Your task to perform on an android device: Add beats solo 3 to the cart on walmart Image 0: 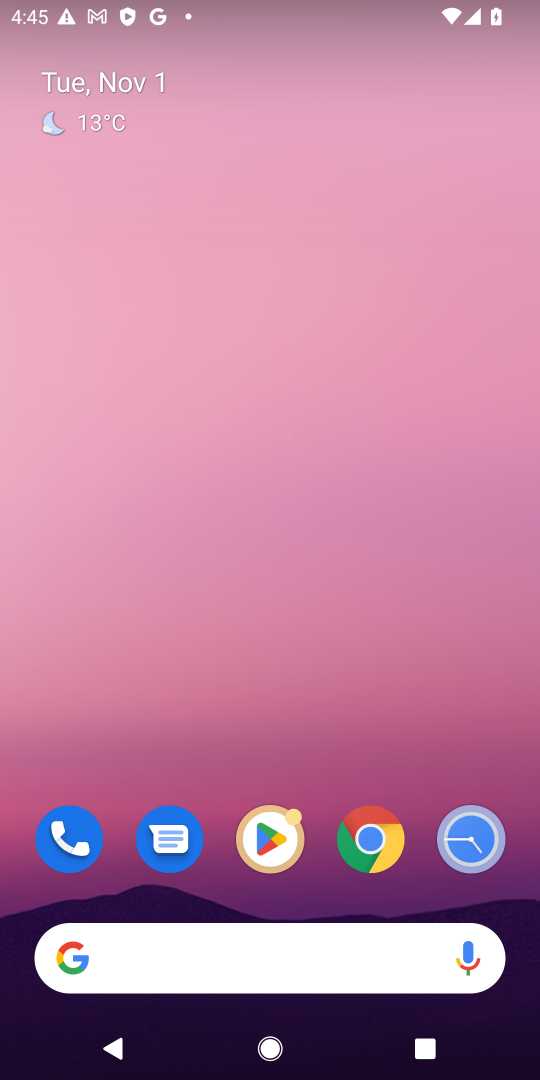
Step 0: drag from (333, 806) to (87, 1)
Your task to perform on an android device: Add beats solo 3 to the cart on walmart Image 1: 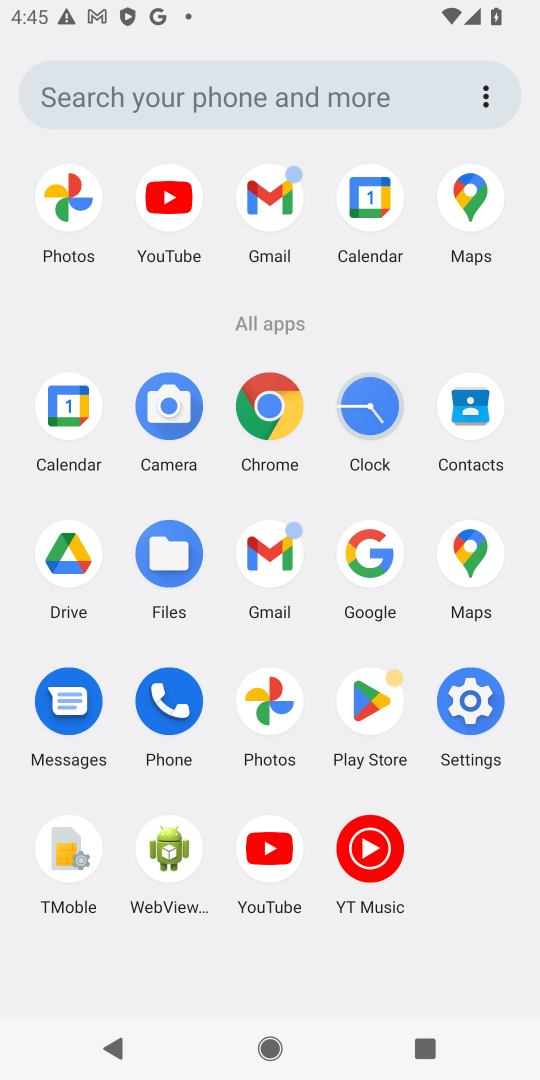
Step 1: click (265, 413)
Your task to perform on an android device: Add beats solo 3 to the cart on walmart Image 2: 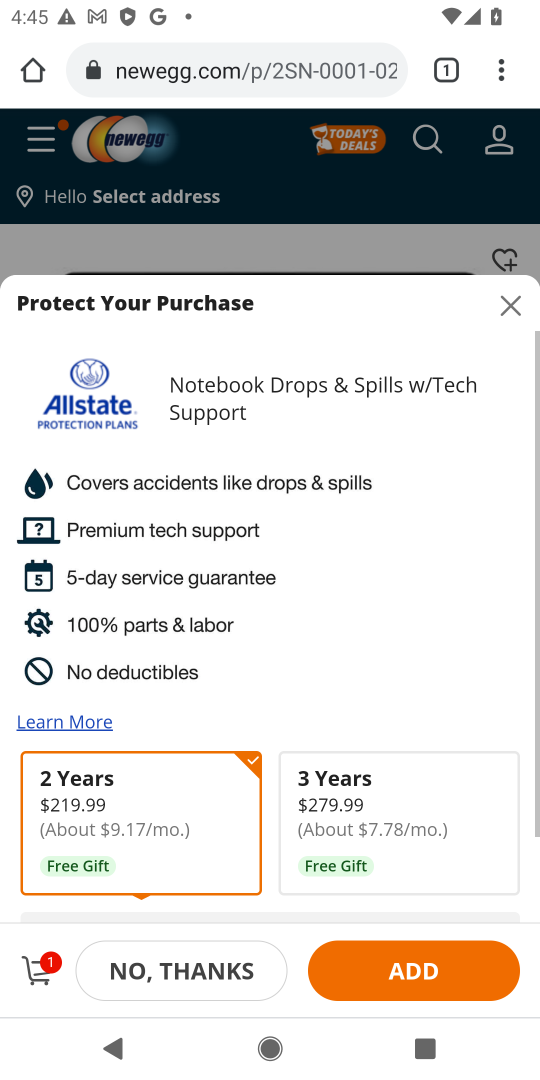
Step 2: click (332, 71)
Your task to perform on an android device: Add beats solo 3 to the cart on walmart Image 3: 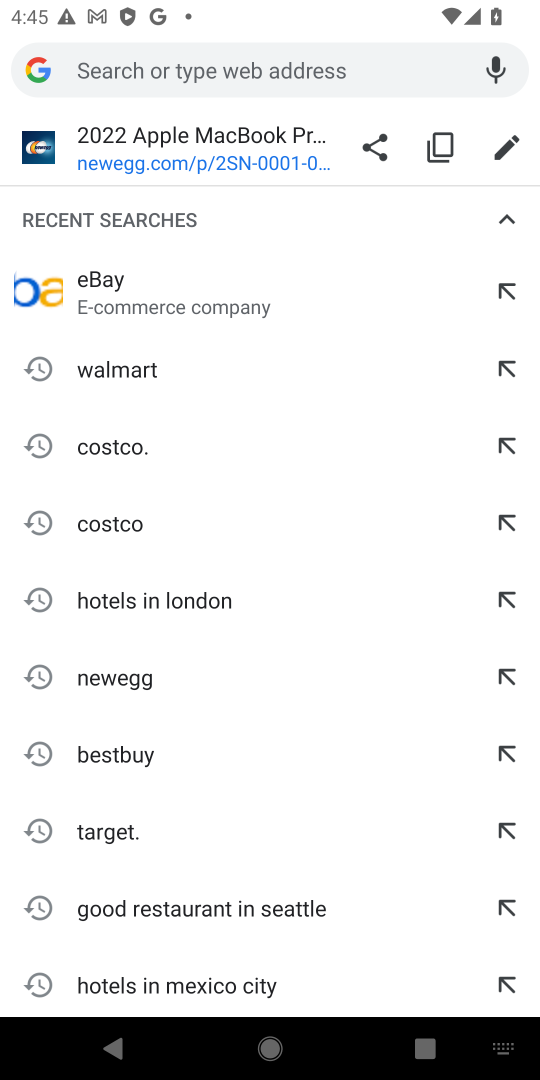
Step 3: type "walmart.com"
Your task to perform on an android device: Add beats solo 3 to the cart on walmart Image 4: 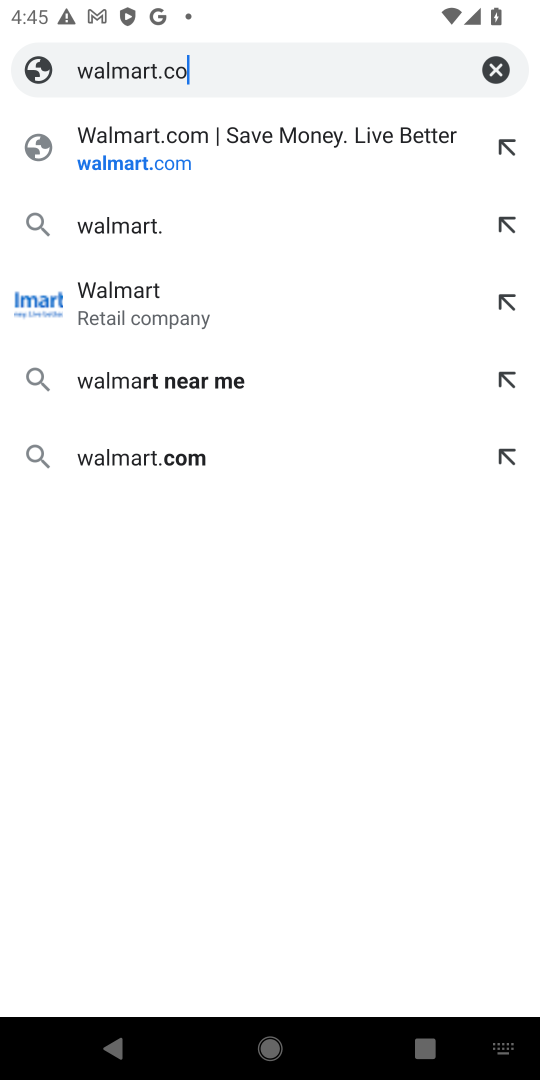
Step 4: press enter
Your task to perform on an android device: Add beats solo 3 to the cart on walmart Image 5: 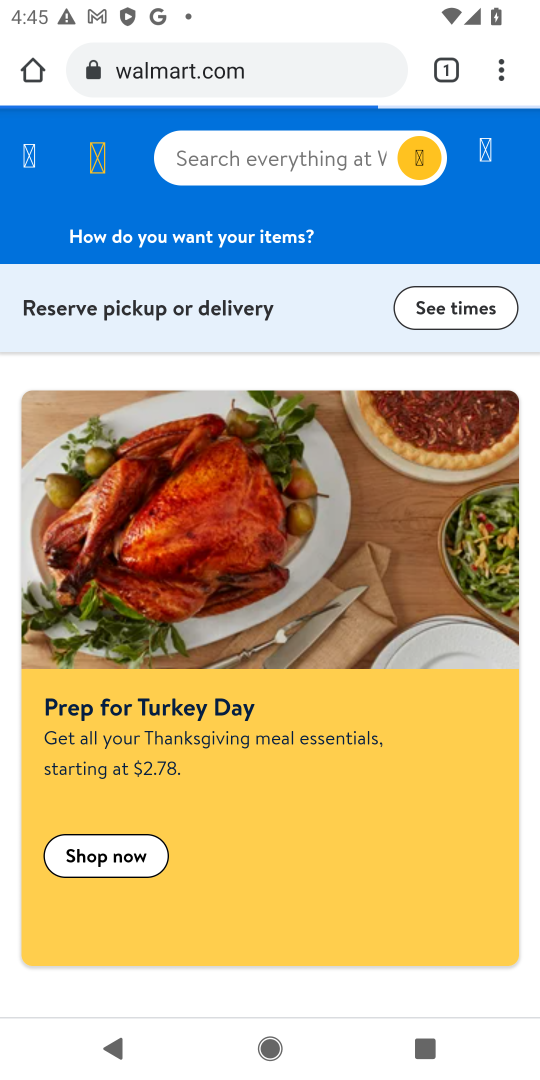
Step 5: click (292, 160)
Your task to perform on an android device: Add beats solo 3 to the cart on walmart Image 6: 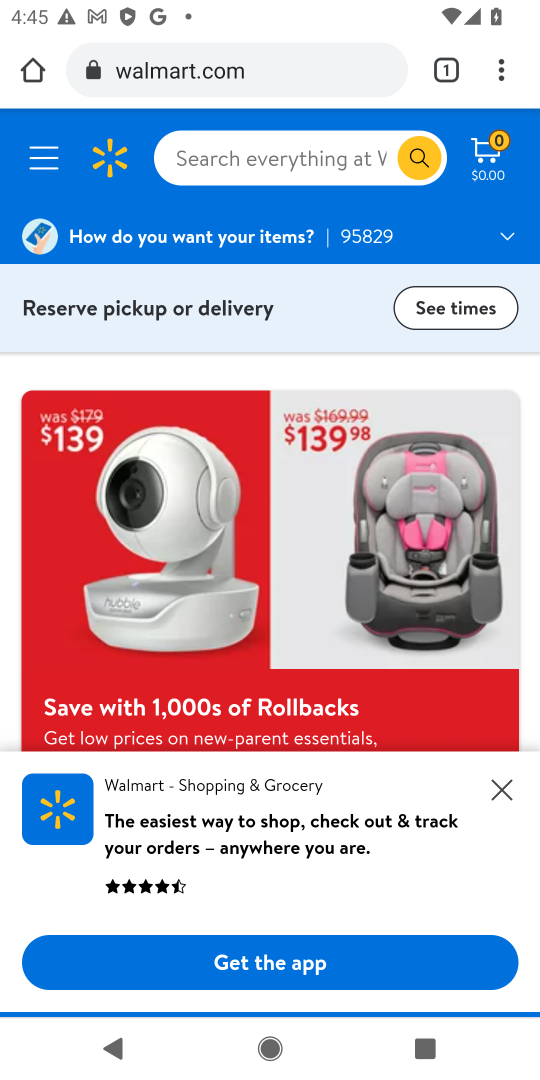
Step 6: click (312, 154)
Your task to perform on an android device: Add beats solo 3 to the cart on walmart Image 7: 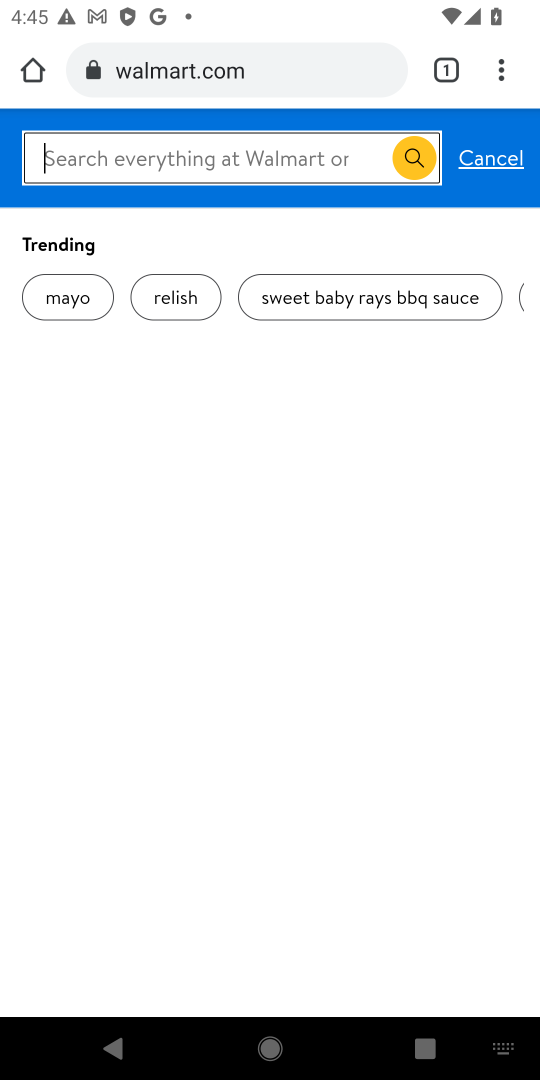
Step 7: type "beats solo 3"
Your task to perform on an android device: Add beats solo 3 to the cart on walmart Image 8: 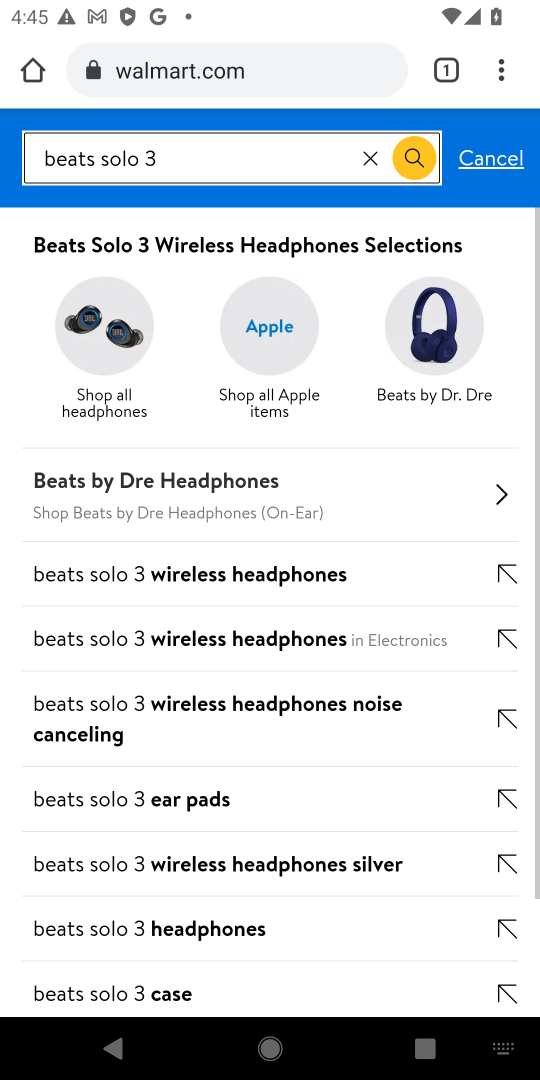
Step 8: press enter
Your task to perform on an android device: Add beats solo 3 to the cart on walmart Image 9: 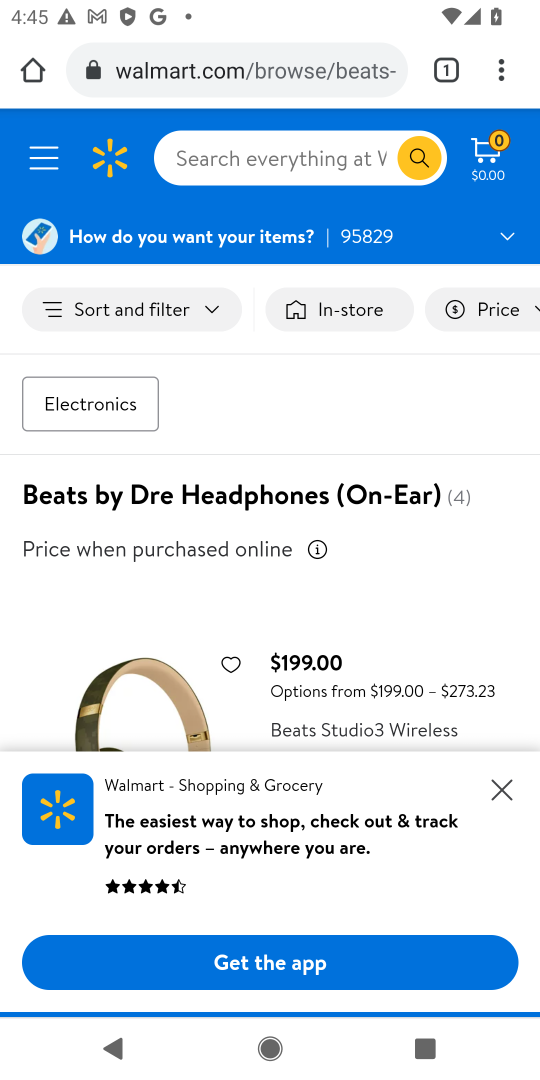
Step 9: click (498, 782)
Your task to perform on an android device: Add beats solo 3 to the cart on walmart Image 10: 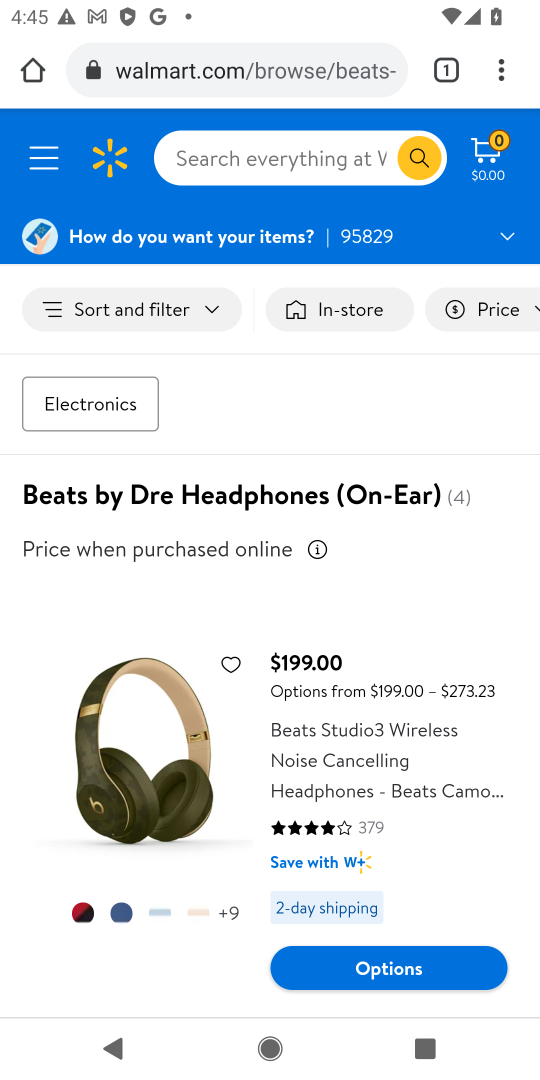
Step 10: drag from (322, 766) to (325, 365)
Your task to perform on an android device: Add beats solo 3 to the cart on walmart Image 11: 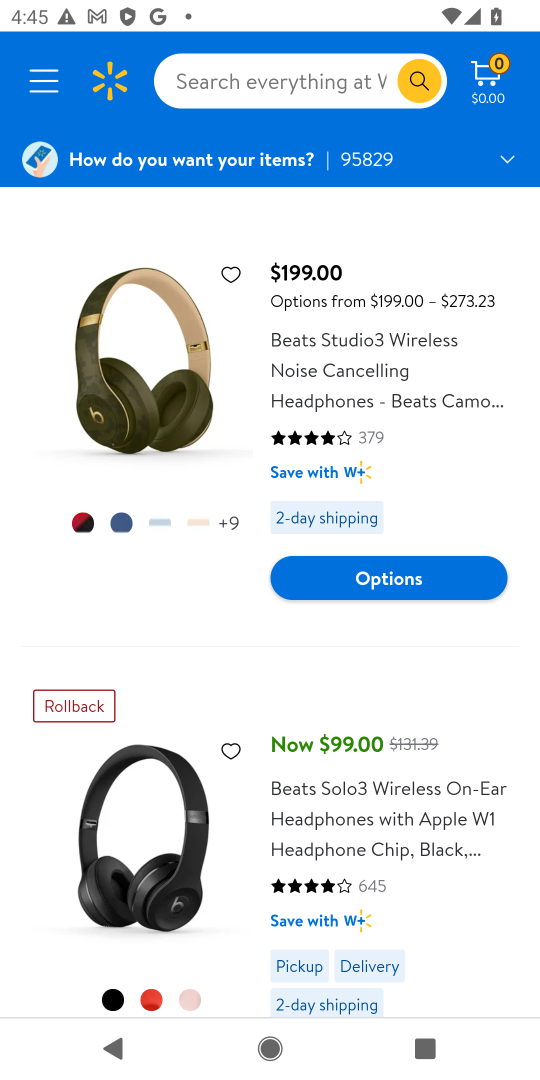
Step 11: drag from (247, 854) to (310, 525)
Your task to perform on an android device: Add beats solo 3 to the cart on walmart Image 12: 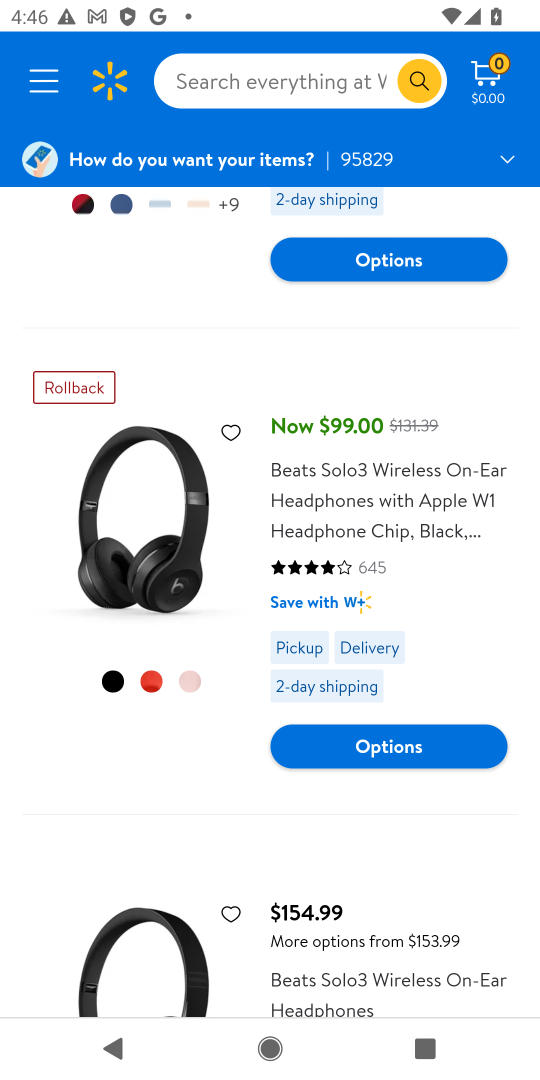
Step 12: click (407, 507)
Your task to perform on an android device: Add beats solo 3 to the cart on walmart Image 13: 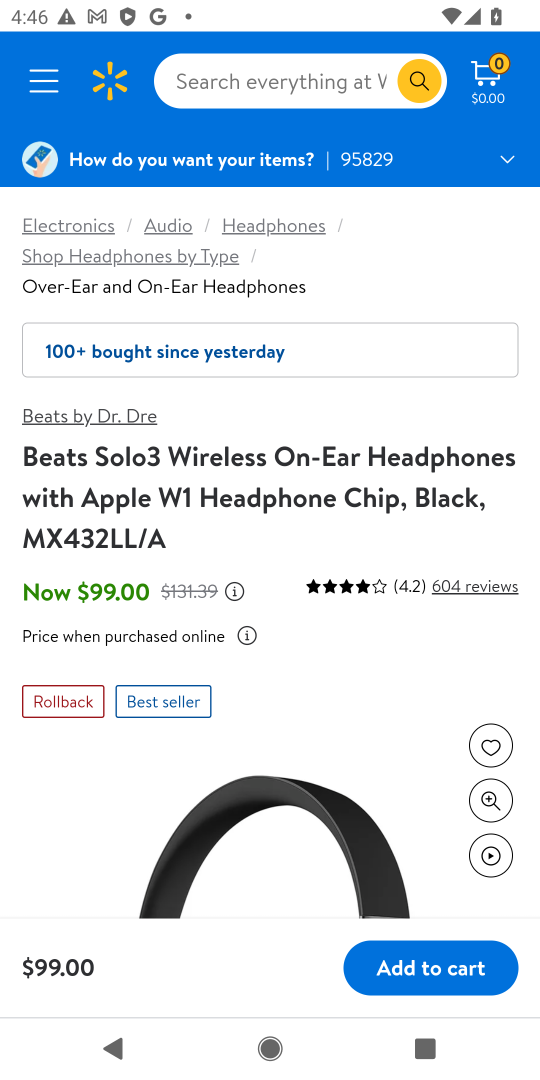
Step 13: drag from (336, 761) to (362, 465)
Your task to perform on an android device: Add beats solo 3 to the cart on walmart Image 14: 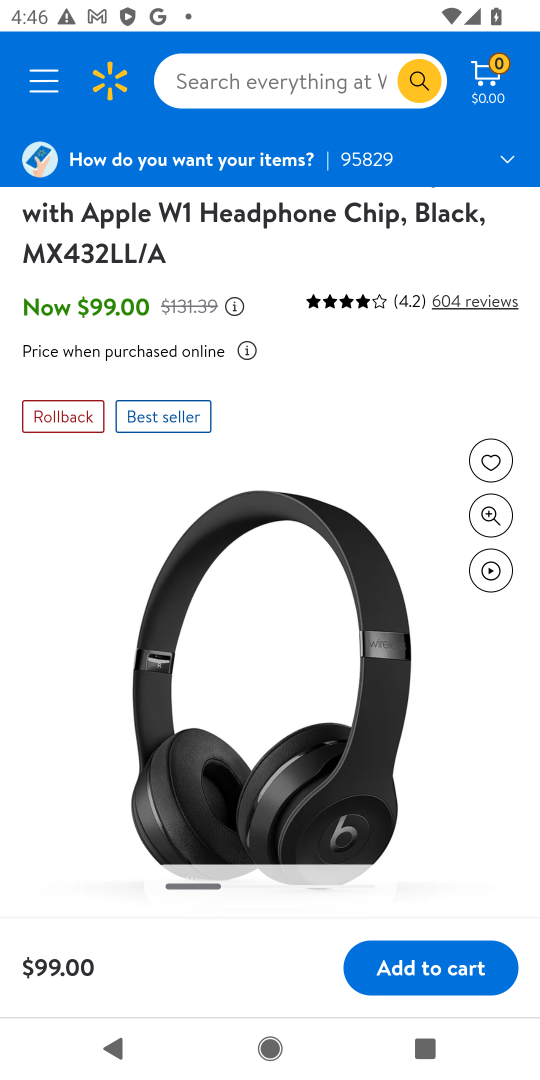
Step 14: click (439, 967)
Your task to perform on an android device: Add beats solo 3 to the cart on walmart Image 15: 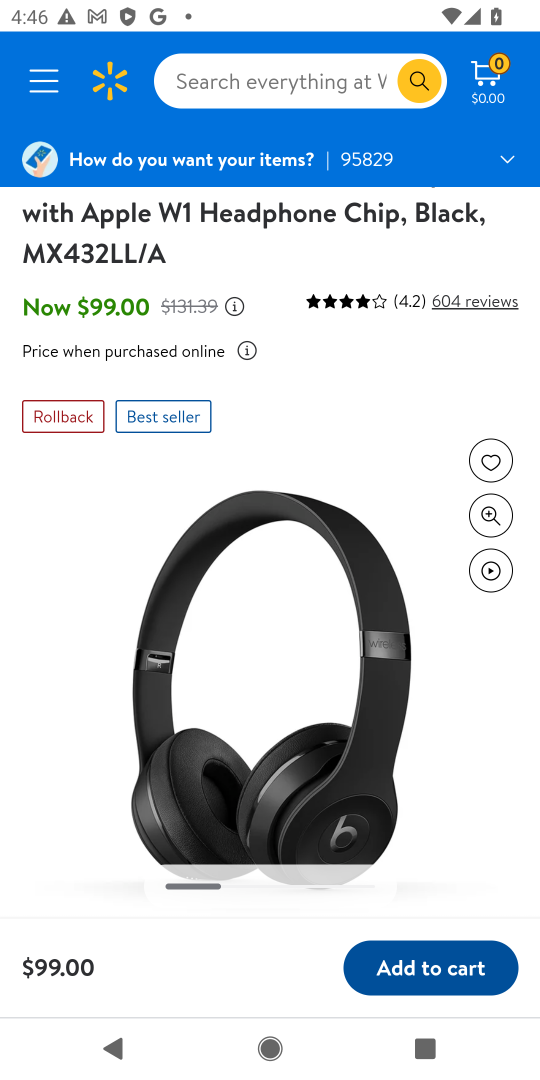
Step 15: click (474, 964)
Your task to perform on an android device: Add beats solo 3 to the cart on walmart Image 16: 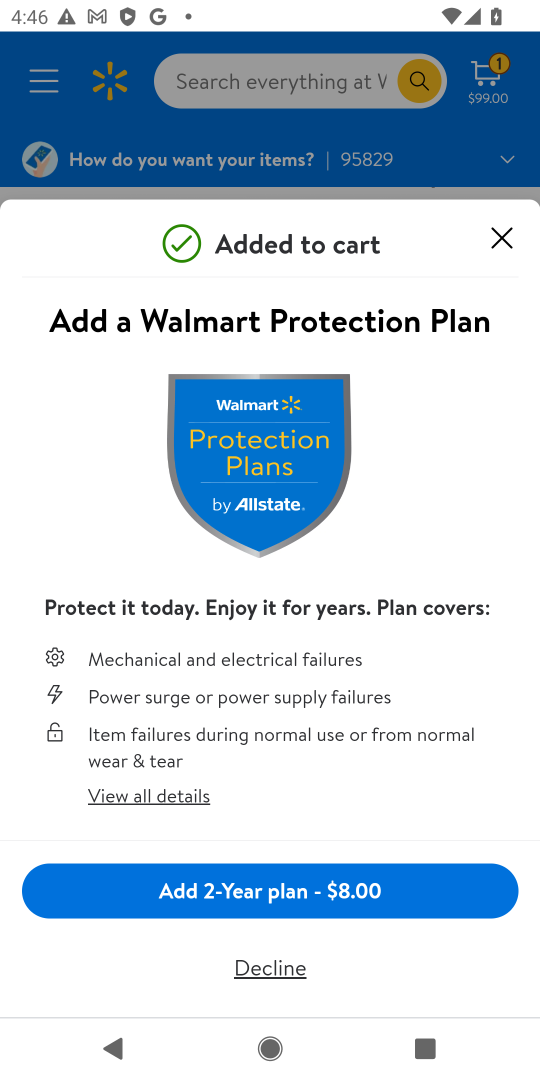
Step 16: click (507, 235)
Your task to perform on an android device: Add beats solo 3 to the cart on walmart Image 17: 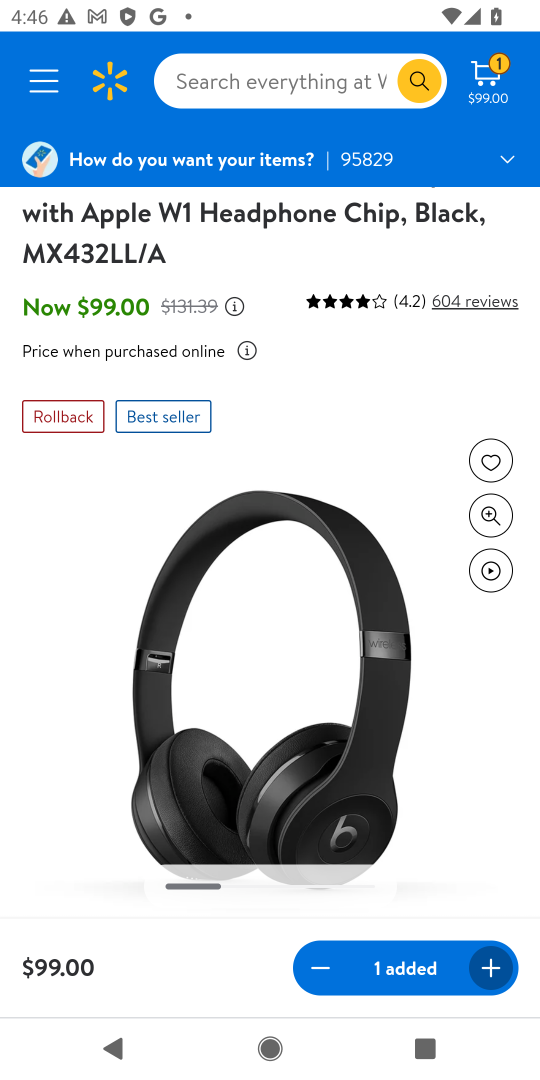
Step 17: task complete